Your task to perform on an android device: See recent photos Image 0: 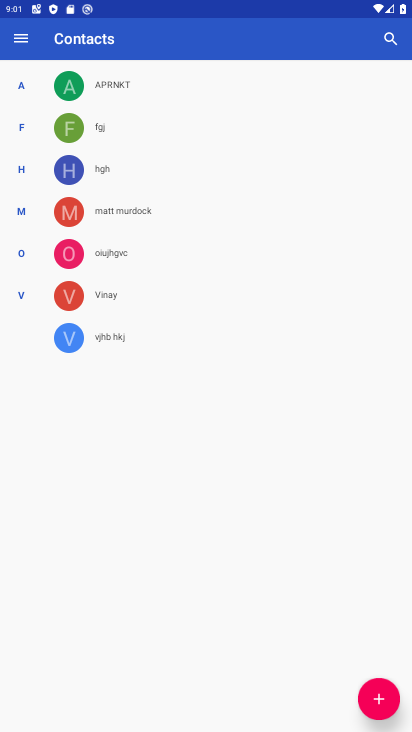
Step 0: press home button
Your task to perform on an android device: See recent photos Image 1: 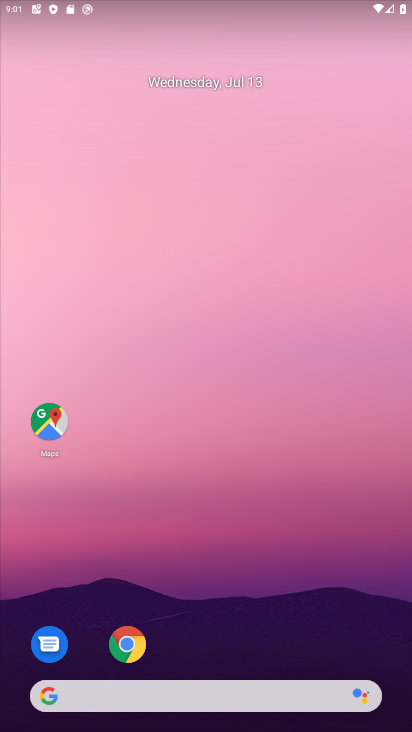
Step 1: drag from (95, 703) to (156, 107)
Your task to perform on an android device: See recent photos Image 2: 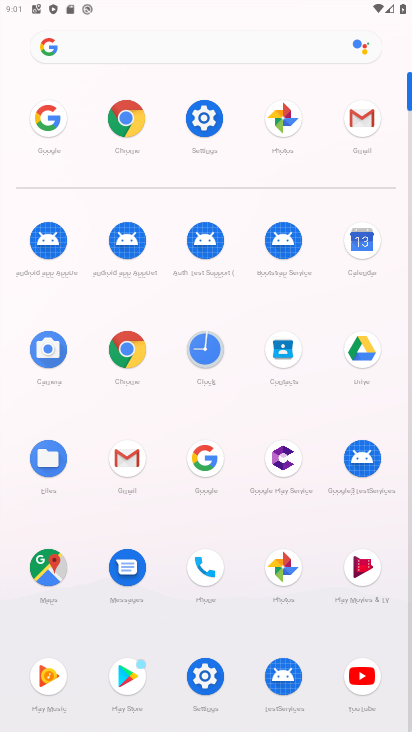
Step 2: click (276, 570)
Your task to perform on an android device: See recent photos Image 3: 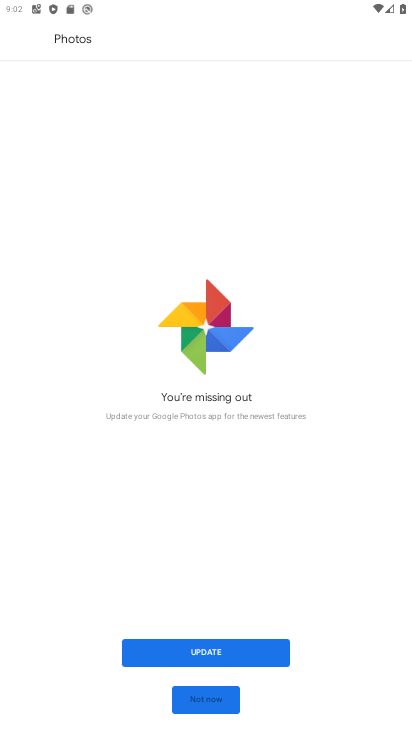
Step 3: task complete